Your task to perform on an android device: turn on translation in the chrome app Image 0: 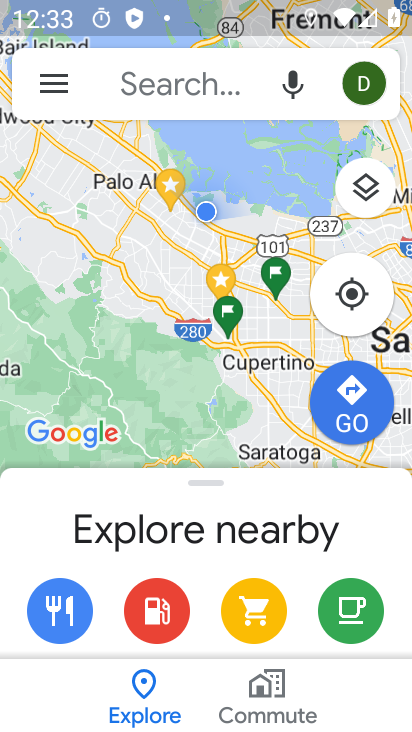
Step 0: press home button
Your task to perform on an android device: turn on translation in the chrome app Image 1: 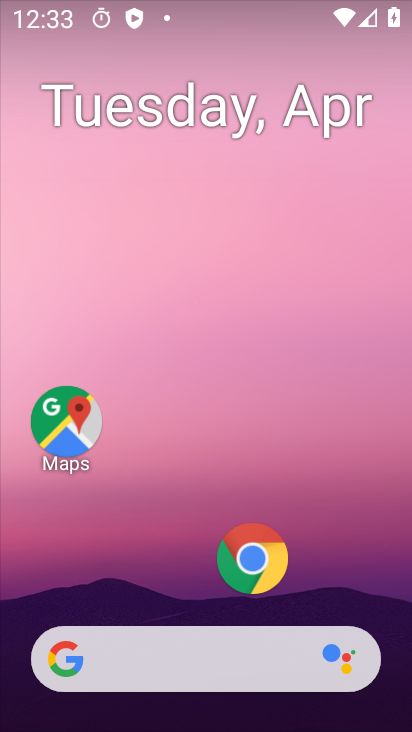
Step 1: click (239, 550)
Your task to perform on an android device: turn on translation in the chrome app Image 2: 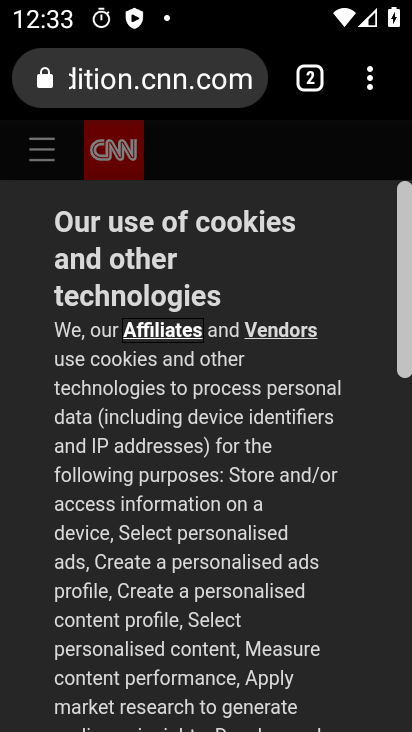
Step 2: click (368, 85)
Your task to perform on an android device: turn on translation in the chrome app Image 3: 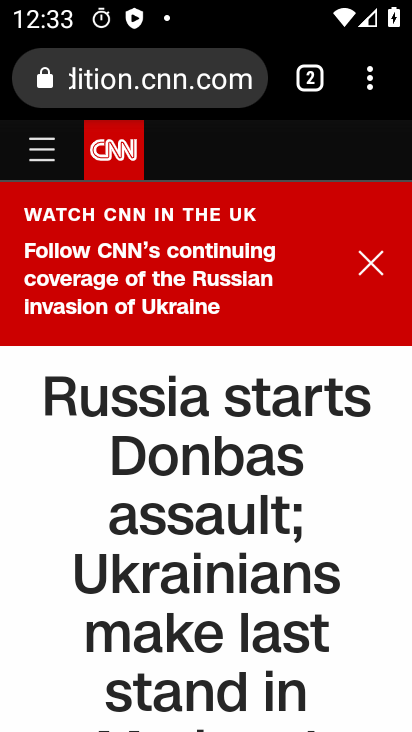
Step 3: click (376, 85)
Your task to perform on an android device: turn on translation in the chrome app Image 4: 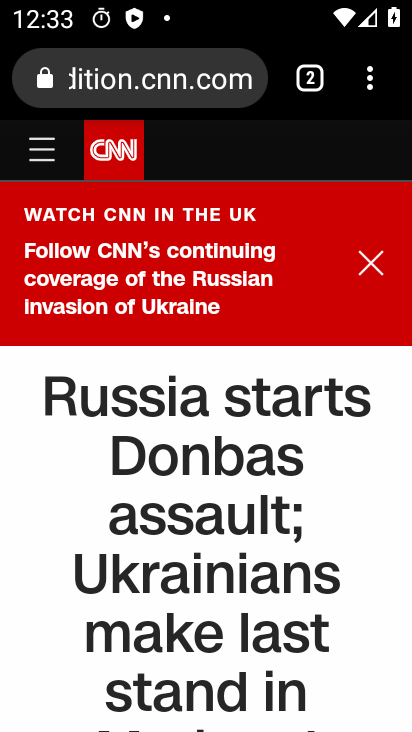
Step 4: click (382, 84)
Your task to perform on an android device: turn on translation in the chrome app Image 5: 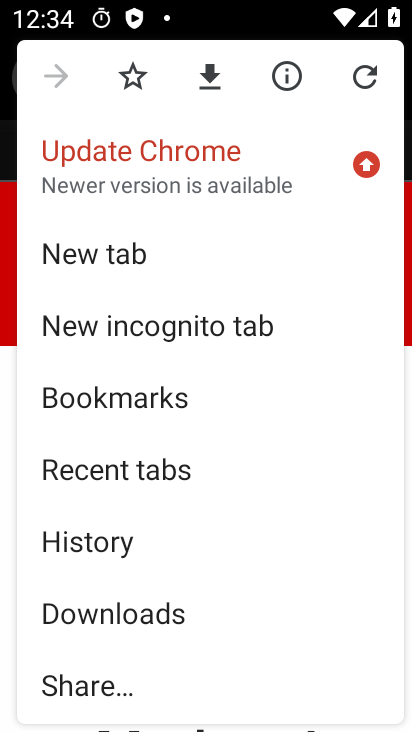
Step 5: drag from (242, 469) to (193, 168)
Your task to perform on an android device: turn on translation in the chrome app Image 6: 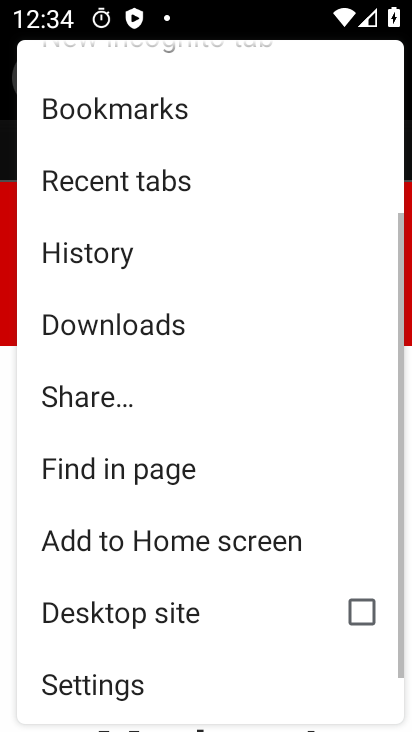
Step 6: drag from (190, 520) to (184, 246)
Your task to perform on an android device: turn on translation in the chrome app Image 7: 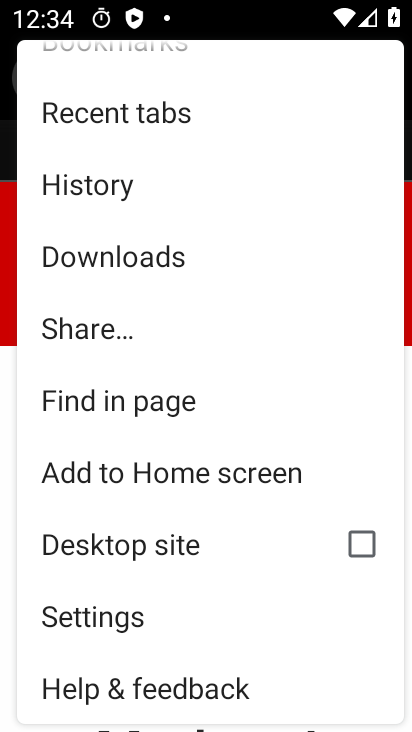
Step 7: click (101, 613)
Your task to perform on an android device: turn on translation in the chrome app Image 8: 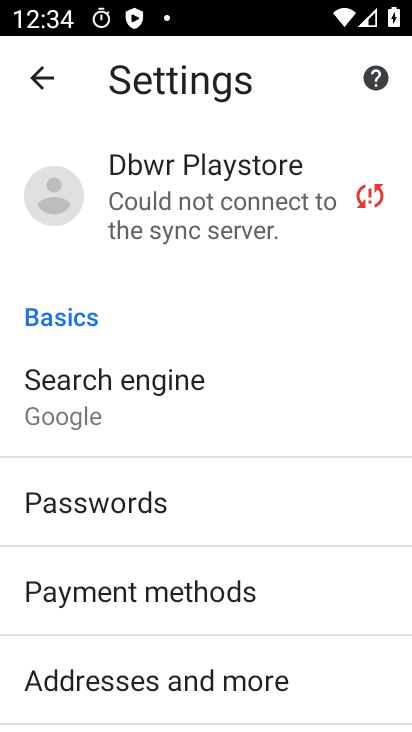
Step 8: drag from (223, 578) to (244, 198)
Your task to perform on an android device: turn on translation in the chrome app Image 9: 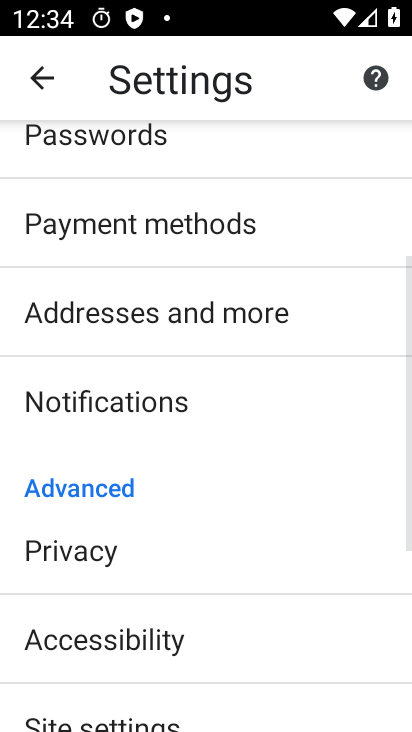
Step 9: drag from (212, 672) to (218, 319)
Your task to perform on an android device: turn on translation in the chrome app Image 10: 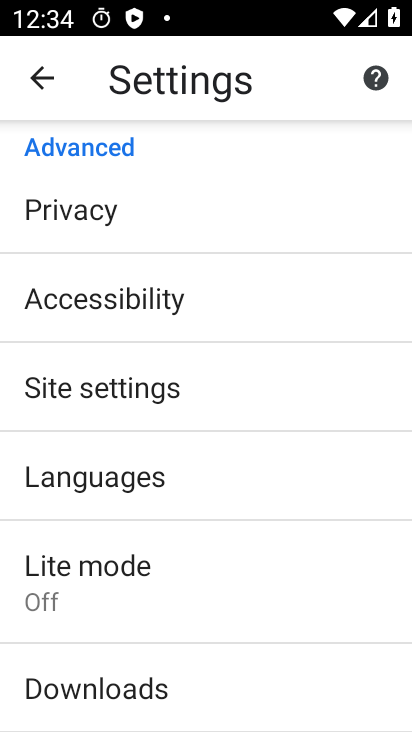
Step 10: click (85, 479)
Your task to perform on an android device: turn on translation in the chrome app Image 11: 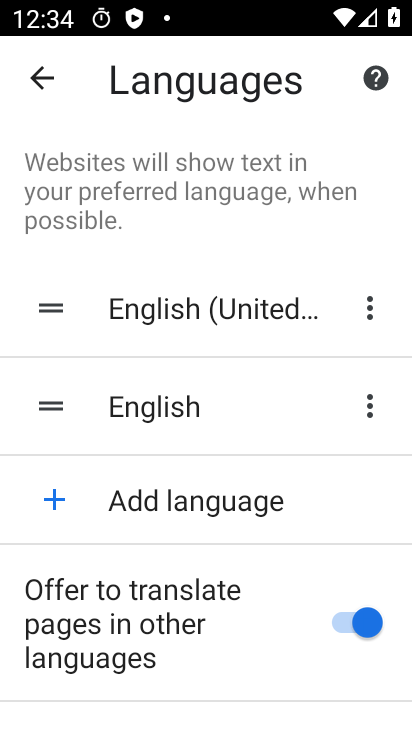
Step 11: task complete